Your task to perform on an android device: Go to notification settings Image 0: 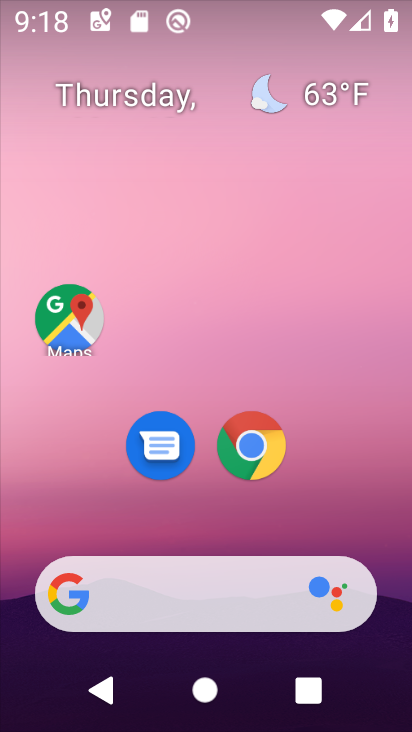
Step 0: drag from (244, 533) to (266, 138)
Your task to perform on an android device: Go to notification settings Image 1: 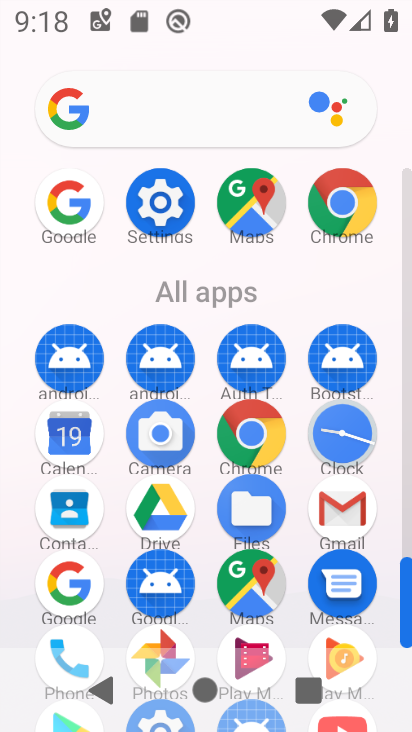
Step 1: click (168, 203)
Your task to perform on an android device: Go to notification settings Image 2: 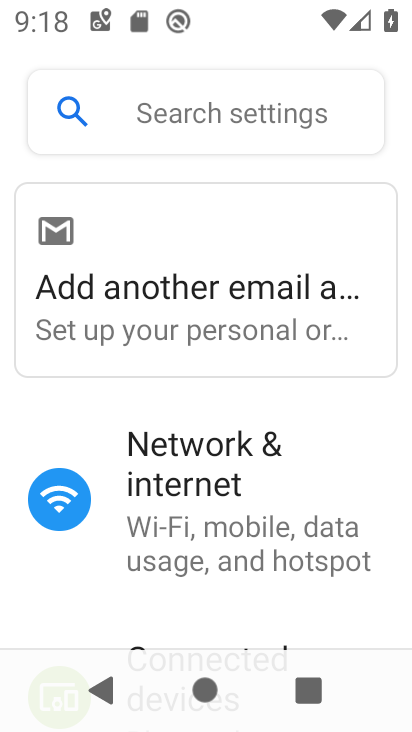
Step 2: drag from (234, 511) to (264, 210)
Your task to perform on an android device: Go to notification settings Image 3: 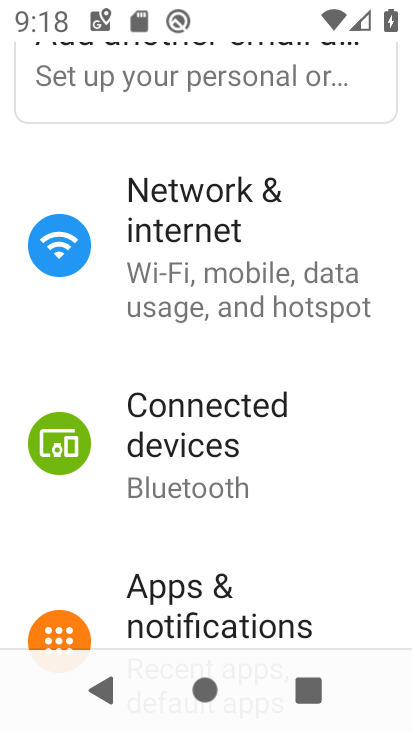
Step 3: drag from (162, 547) to (214, 349)
Your task to perform on an android device: Go to notification settings Image 4: 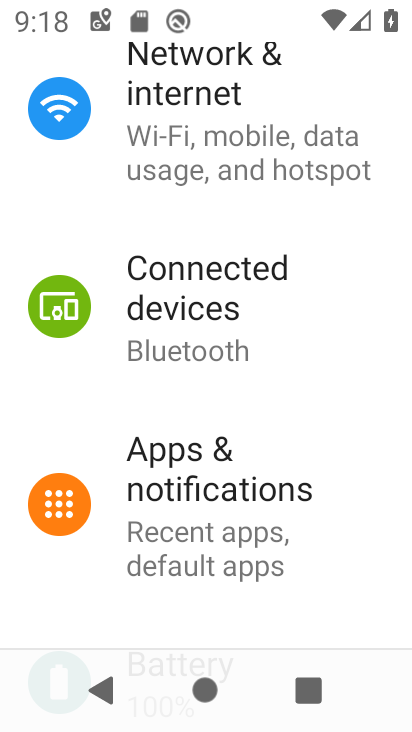
Step 4: click (204, 469)
Your task to perform on an android device: Go to notification settings Image 5: 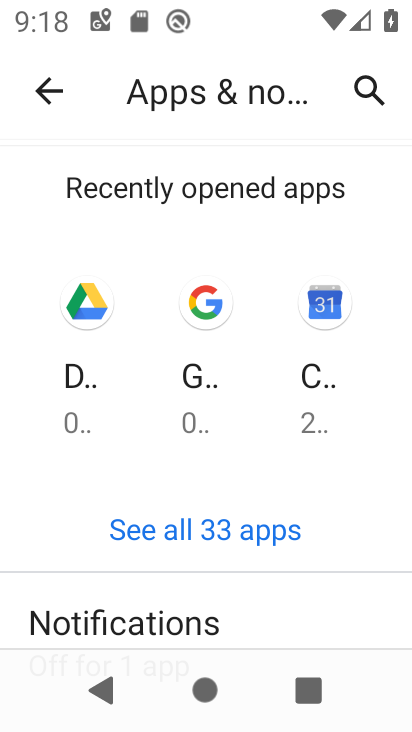
Step 5: drag from (238, 596) to (230, 385)
Your task to perform on an android device: Go to notification settings Image 6: 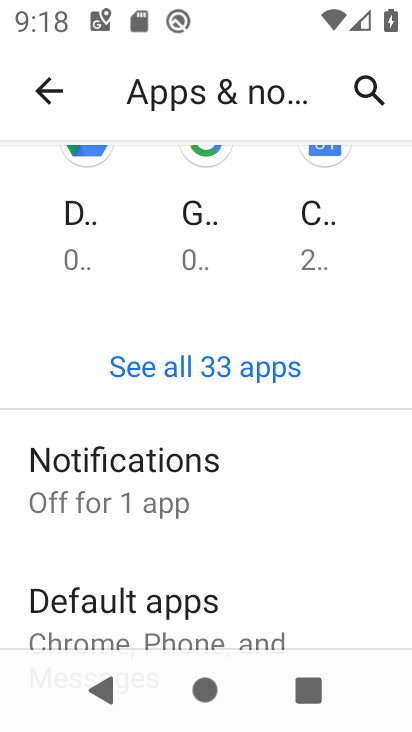
Step 6: drag from (185, 517) to (215, 376)
Your task to perform on an android device: Go to notification settings Image 7: 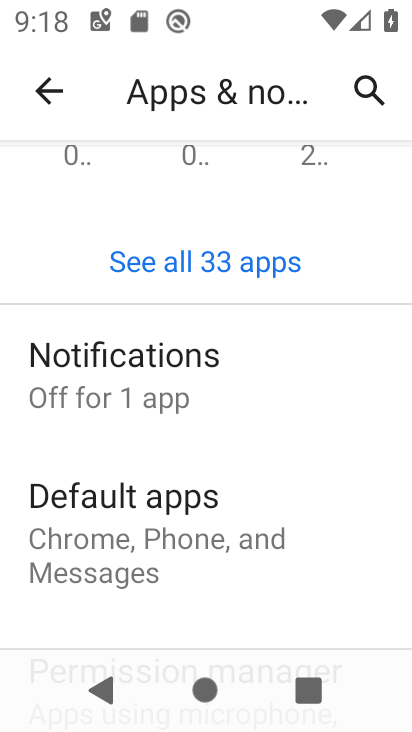
Step 7: click (207, 389)
Your task to perform on an android device: Go to notification settings Image 8: 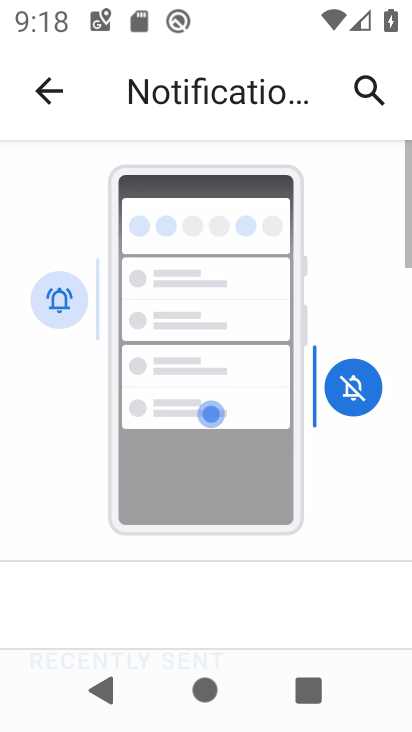
Step 8: task complete